Your task to perform on an android device: Find coffee shops on Maps Image 0: 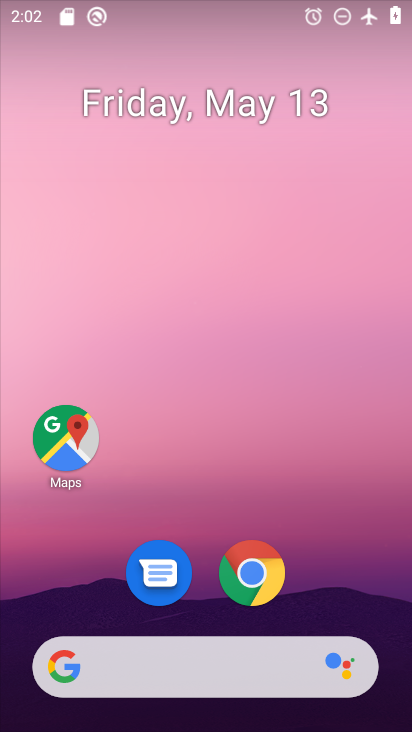
Step 0: click (64, 450)
Your task to perform on an android device: Find coffee shops on Maps Image 1: 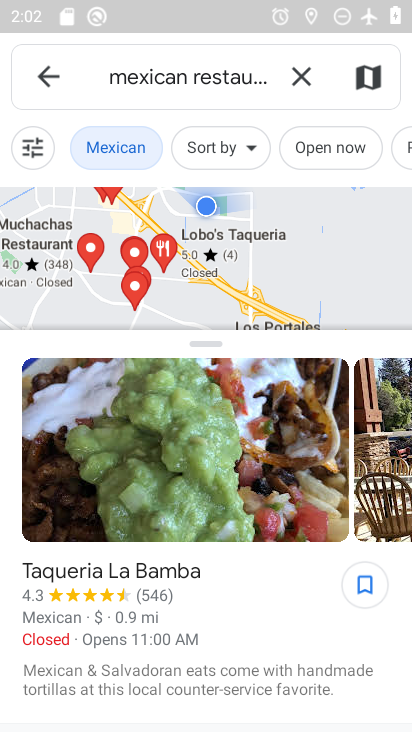
Step 1: click (309, 74)
Your task to perform on an android device: Find coffee shops on Maps Image 2: 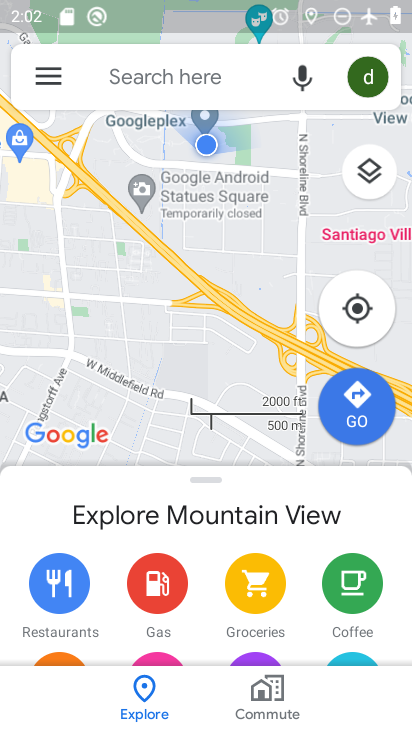
Step 2: click (227, 80)
Your task to perform on an android device: Find coffee shops on Maps Image 3: 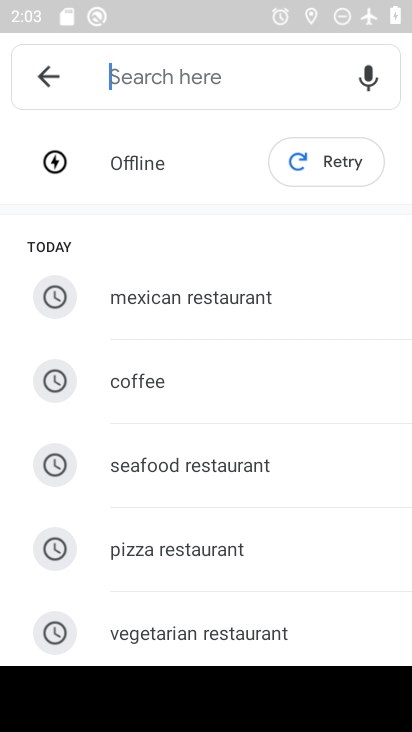
Step 3: click (185, 377)
Your task to perform on an android device: Find coffee shops on Maps Image 4: 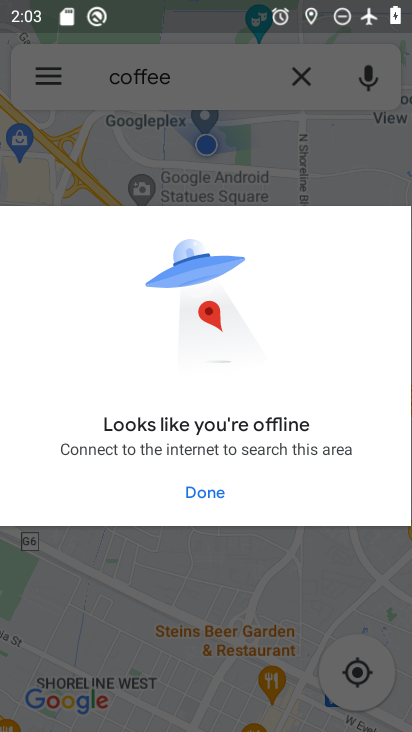
Step 4: task complete